Your task to perform on an android device: check the backup settings in the google photos Image 0: 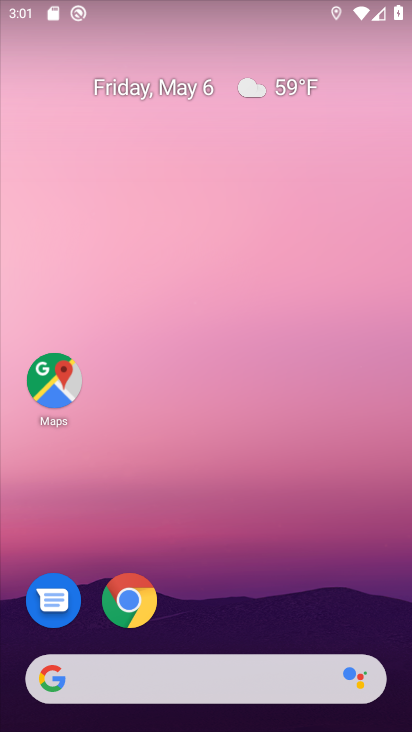
Step 0: press home button
Your task to perform on an android device: check the backup settings in the google photos Image 1: 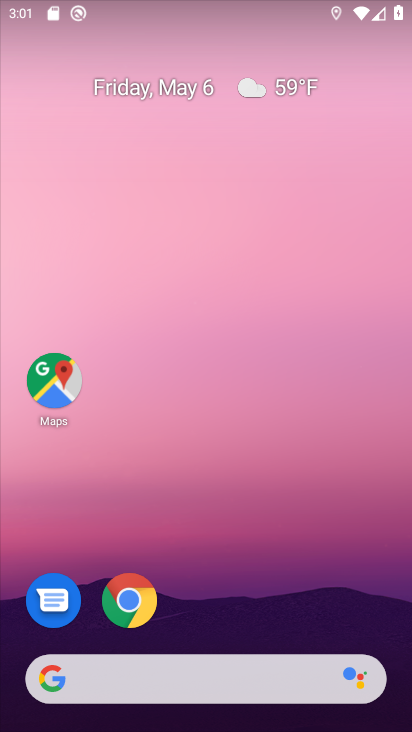
Step 1: drag from (235, 585) to (224, 39)
Your task to perform on an android device: check the backup settings in the google photos Image 2: 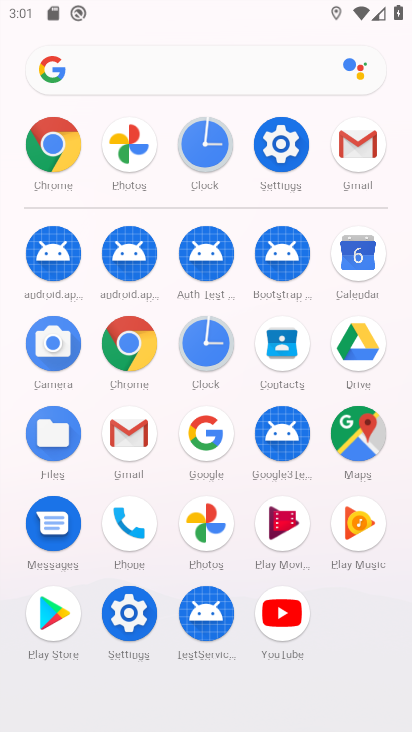
Step 2: click (204, 520)
Your task to perform on an android device: check the backup settings in the google photos Image 3: 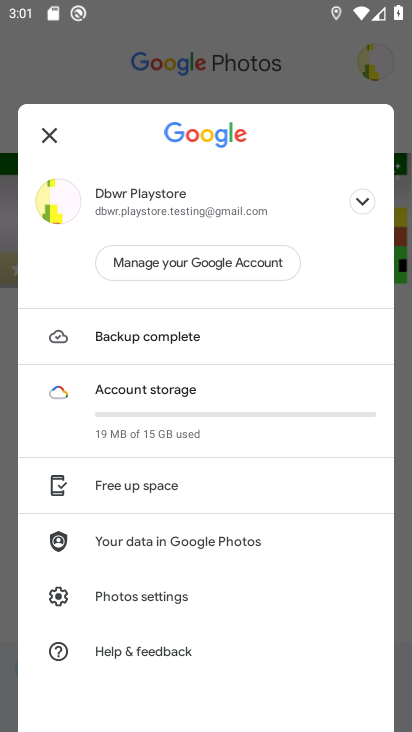
Step 3: click (154, 595)
Your task to perform on an android device: check the backup settings in the google photos Image 4: 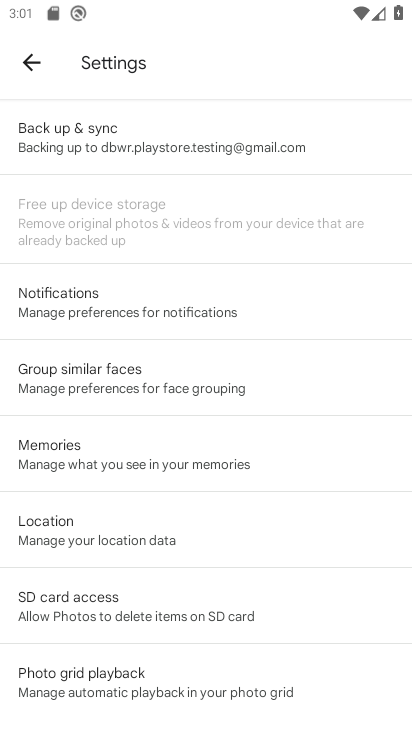
Step 4: click (147, 139)
Your task to perform on an android device: check the backup settings in the google photos Image 5: 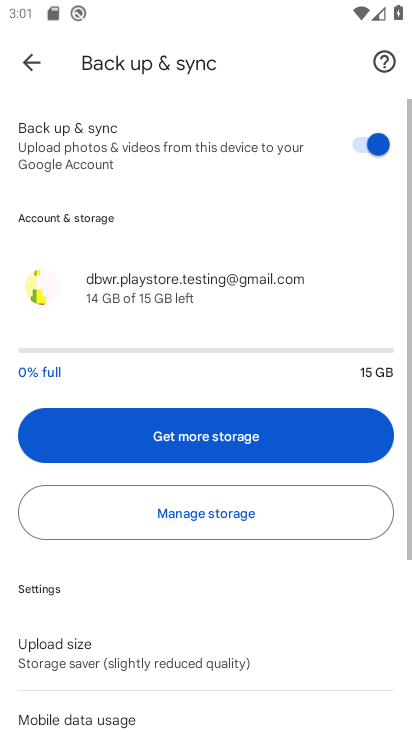
Step 5: task complete